Your task to perform on an android device: Search for vegetarian restaurants on Maps Image 0: 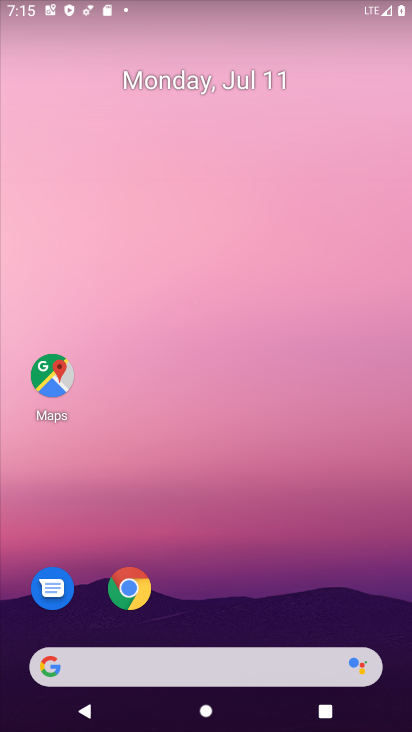
Step 0: drag from (353, 615) to (280, 195)
Your task to perform on an android device: Search for vegetarian restaurants on Maps Image 1: 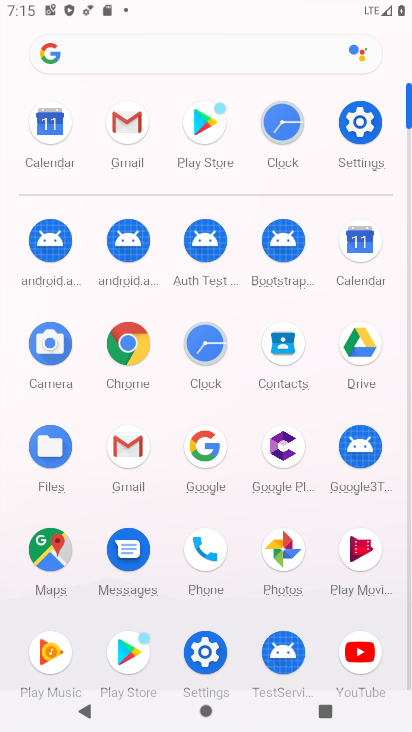
Step 1: click (41, 556)
Your task to perform on an android device: Search for vegetarian restaurants on Maps Image 2: 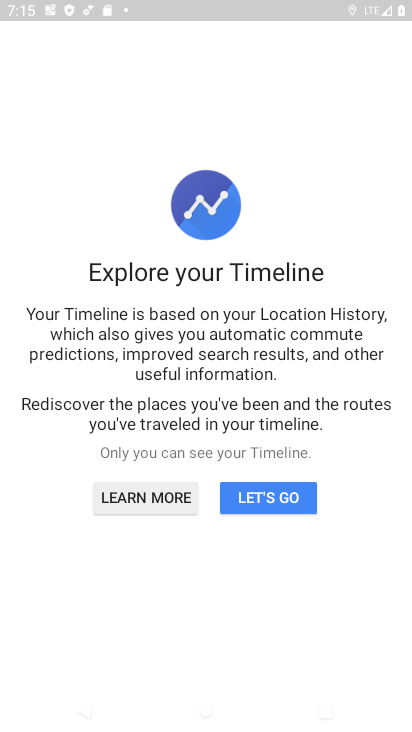
Step 2: press back button
Your task to perform on an android device: Search for vegetarian restaurants on Maps Image 3: 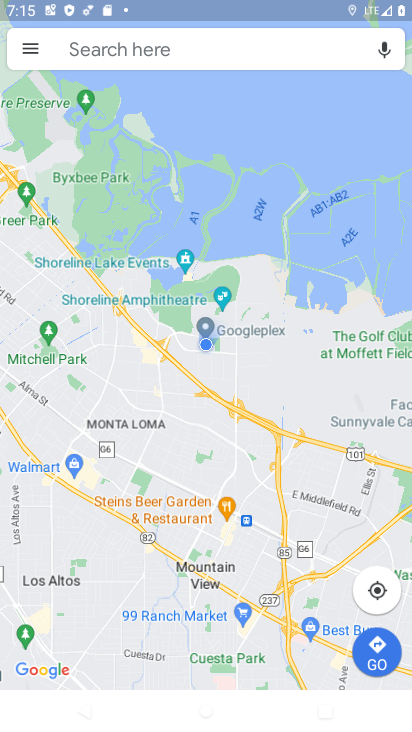
Step 3: click (180, 51)
Your task to perform on an android device: Search for vegetarian restaurants on Maps Image 4: 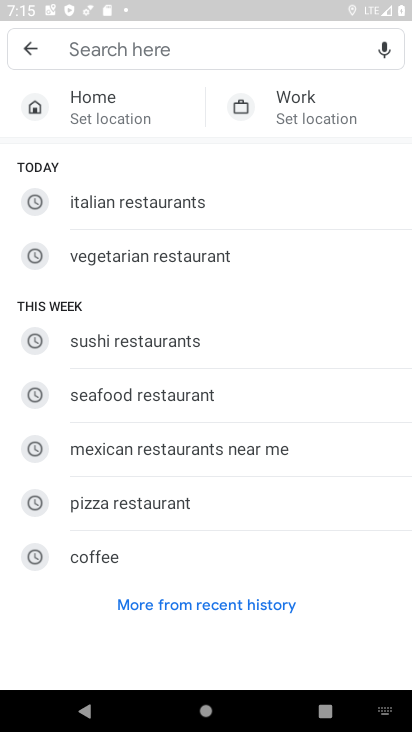
Step 4: click (177, 248)
Your task to perform on an android device: Search for vegetarian restaurants on Maps Image 5: 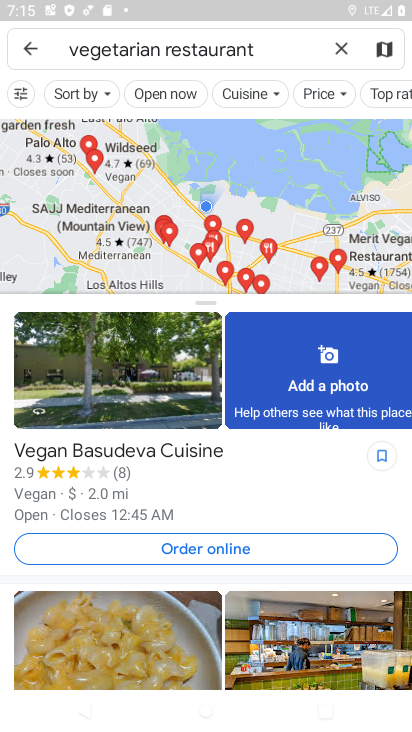
Step 5: task complete